Your task to perform on an android device: Show the shopping cart on walmart. Image 0: 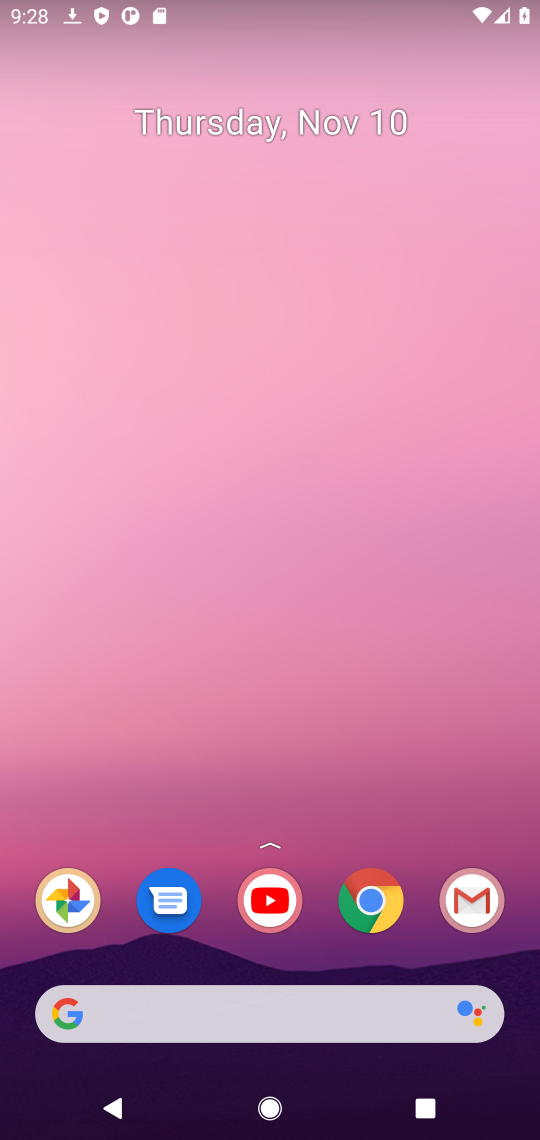
Step 0: click (379, 896)
Your task to perform on an android device: Show the shopping cart on walmart. Image 1: 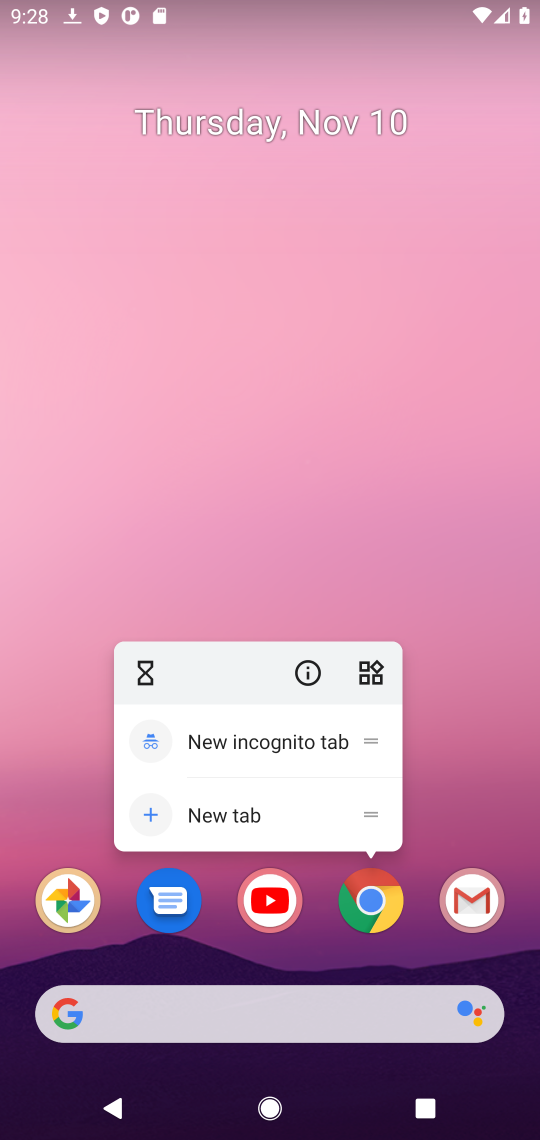
Step 1: click (367, 899)
Your task to perform on an android device: Show the shopping cart on walmart. Image 2: 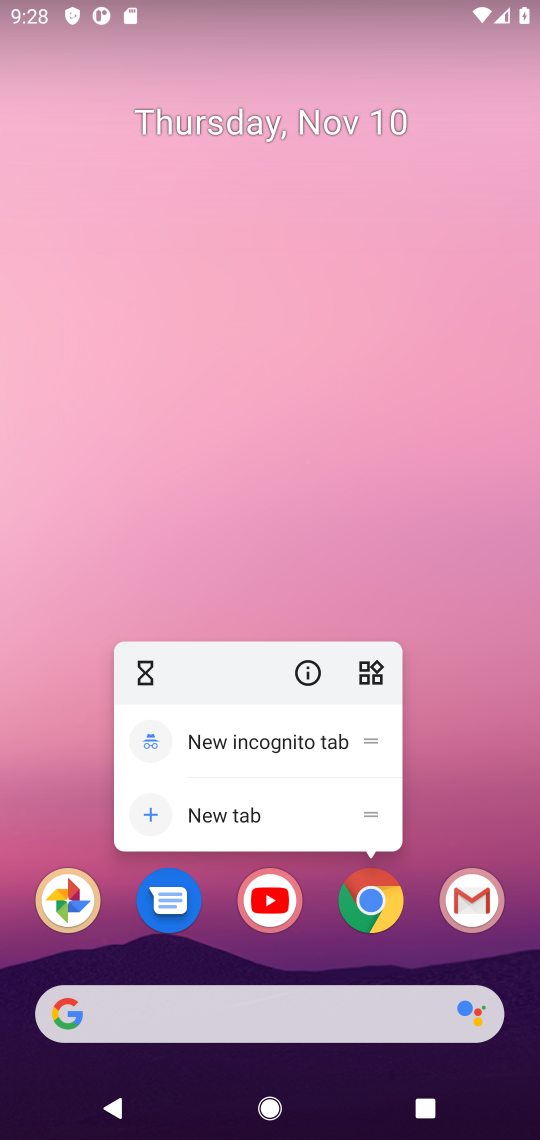
Step 2: click (367, 899)
Your task to perform on an android device: Show the shopping cart on walmart. Image 3: 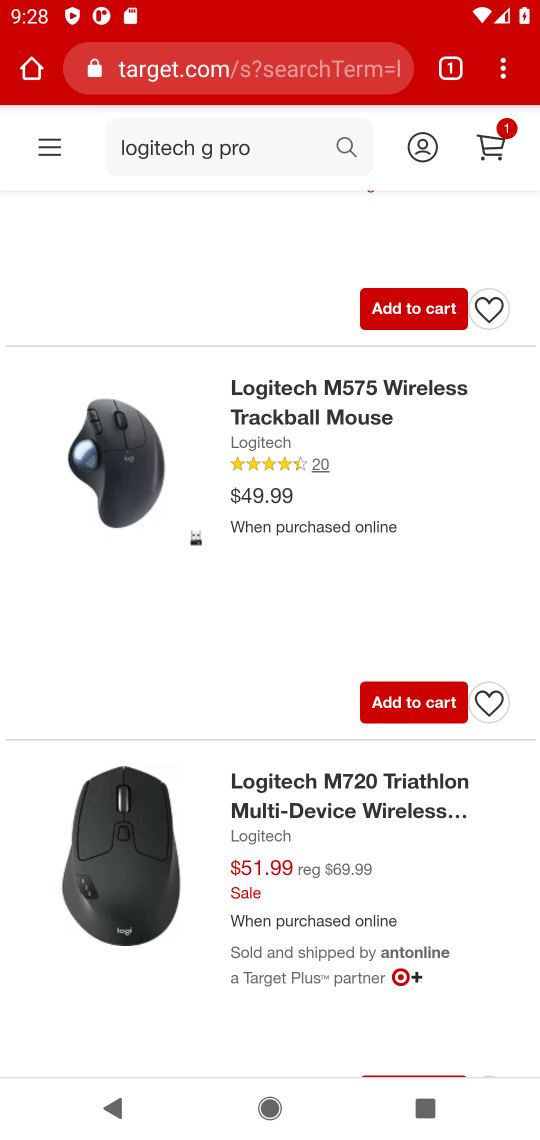
Step 3: click (288, 63)
Your task to perform on an android device: Show the shopping cart on walmart. Image 4: 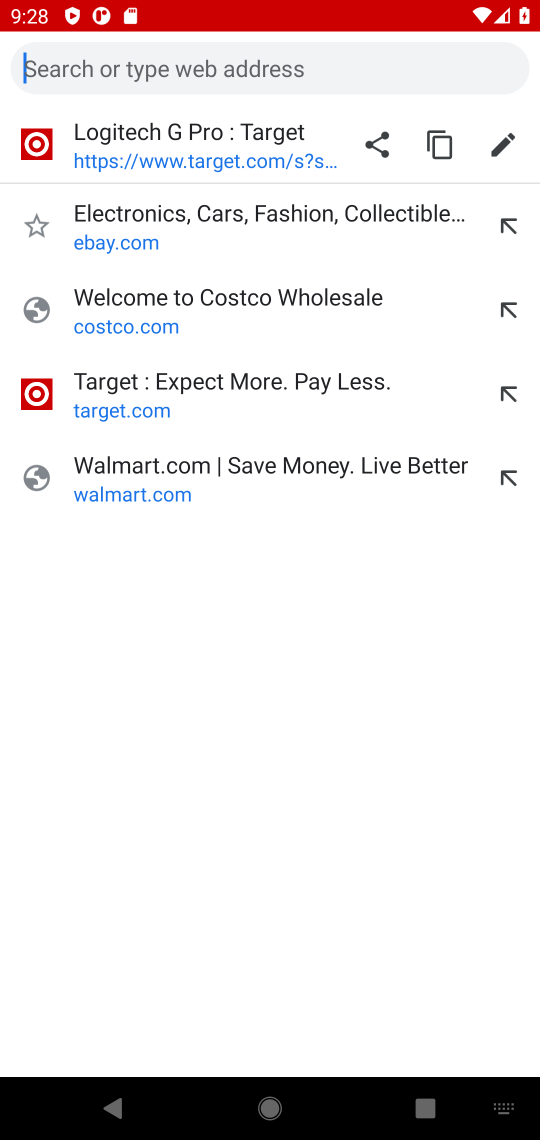
Step 4: click (130, 488)
Your task to perform on an android device: Show the shopping cart on walmart. Image 5: 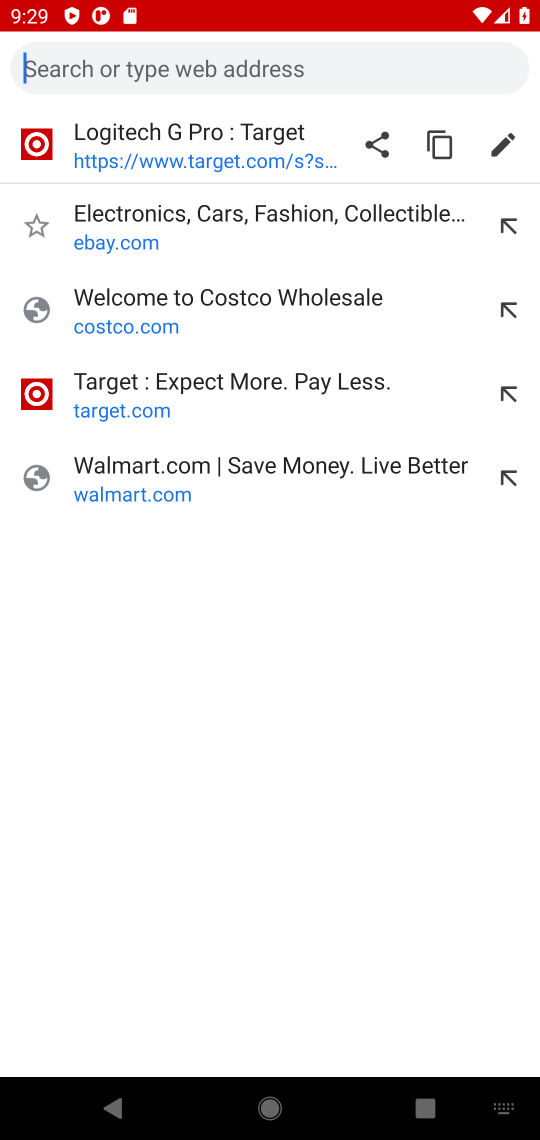
Step 5: click (107, 457)
Your task to perform on an android device: Show the shopping cart on walmart. Image 6: 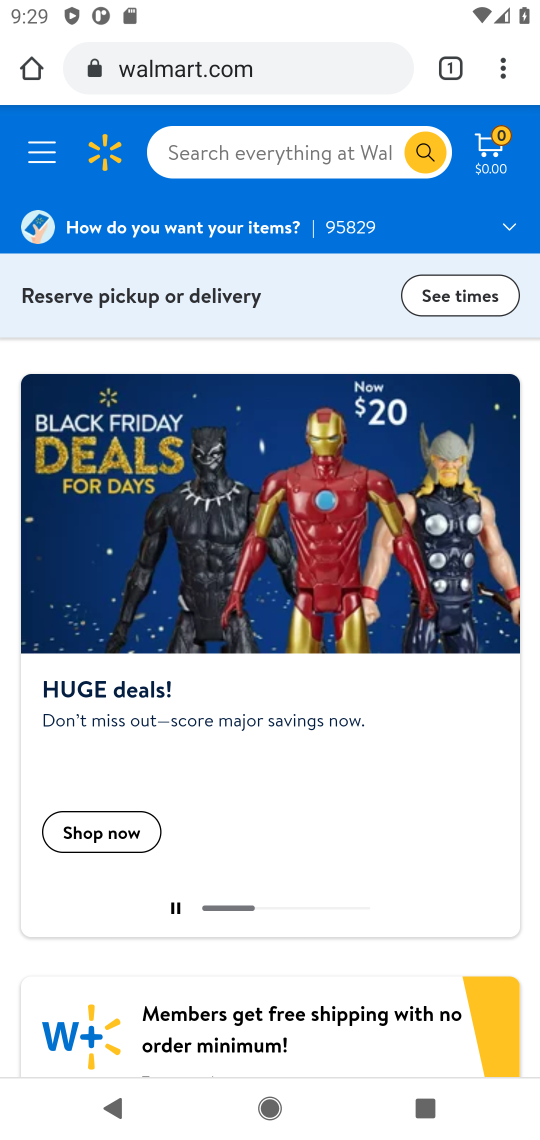
Step 6: click (498, 153)
Your task to perform on an android device: Show the shopping cart on walmart. Image 7: 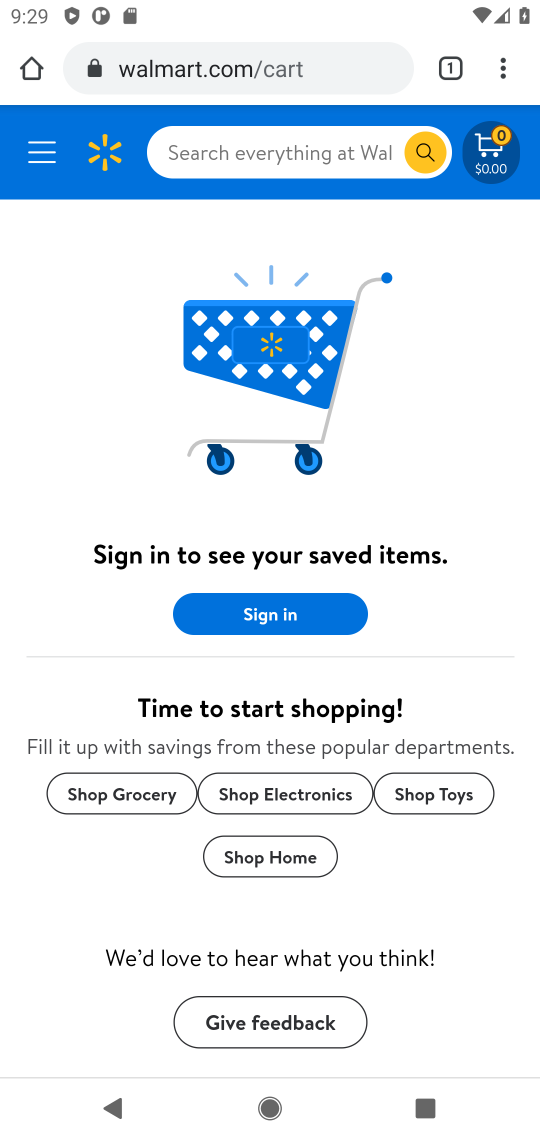
Step 7: task complete